Your task to perform on an android device: all mails in gmail Image 0: 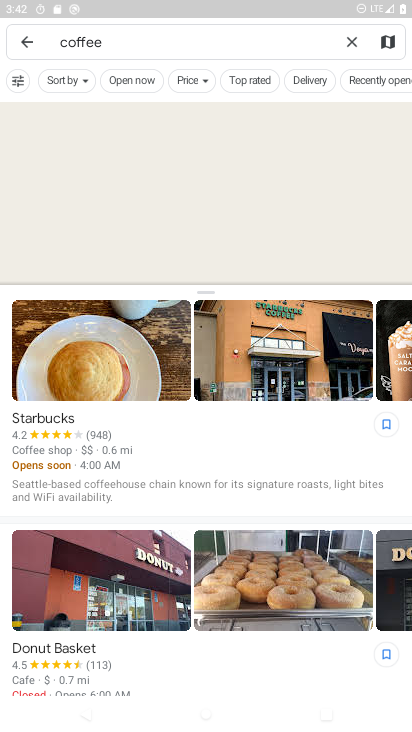
Step 0: press home button
Your task to perform on an android device: all mails in gmail Image 1: 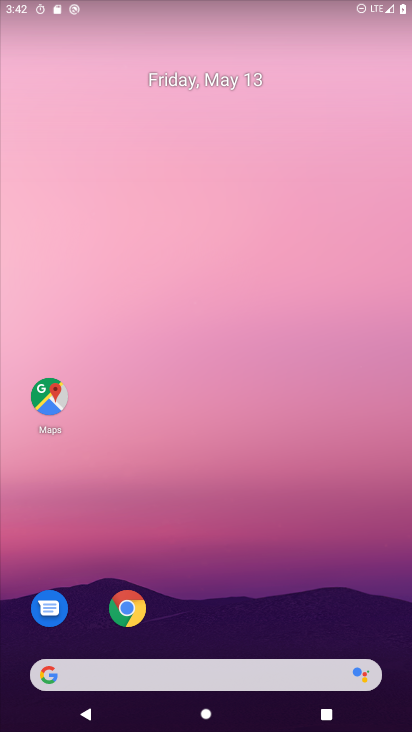
Step 1: drag from (226, 621) to (187, 142)
Your task to perform on an android device: all mails in gmail Image 2: 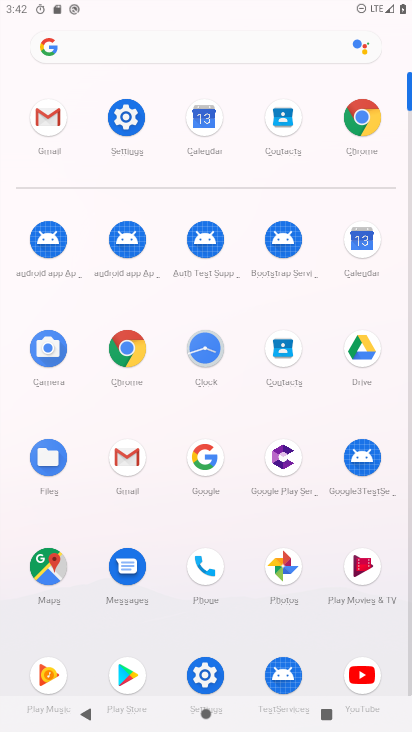
Step 2: click (114, 448)
Your task to perform on an android device: all mails in gmail Image 3: 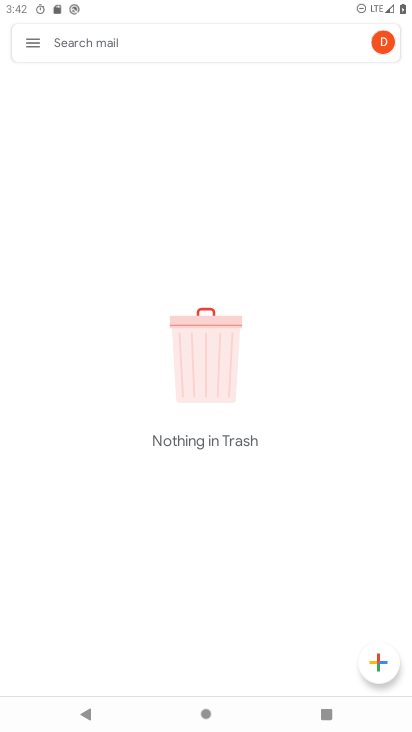
Step 3: click (35, 48)
Your task to perform on an android device: all mails in gmail Image 4: 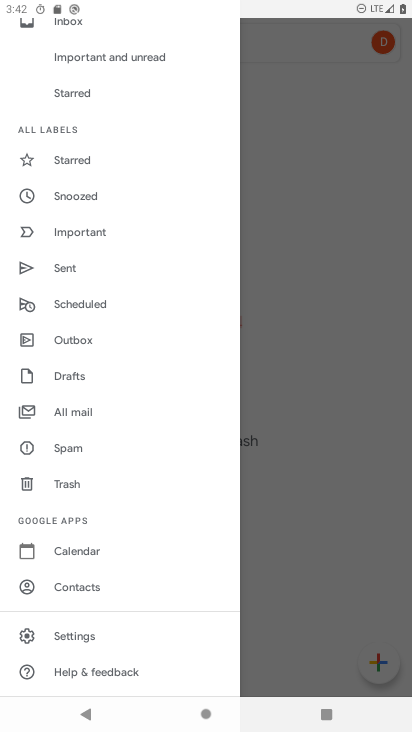
Step 4: click (67, 411)
Your task to perform on an android device: all mails in gmail Image 5: 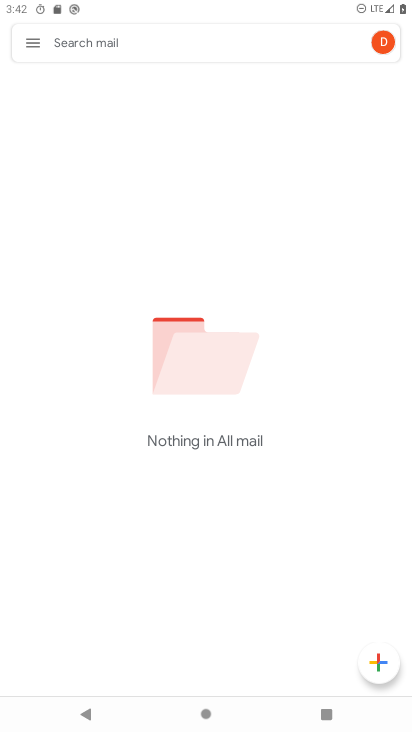
Step 5: task complete